Your task to perform on an android device: Open internet settings Image 0: 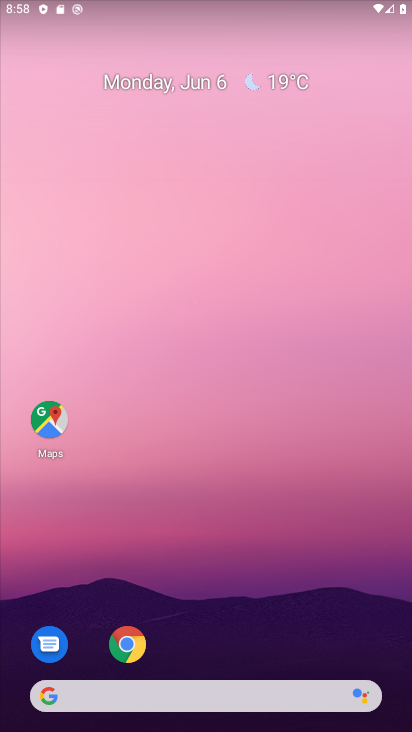
Step 0: drag from (191, 657) to (257, 158)
Your task to perform on an android device: Open internet settings Image 1: 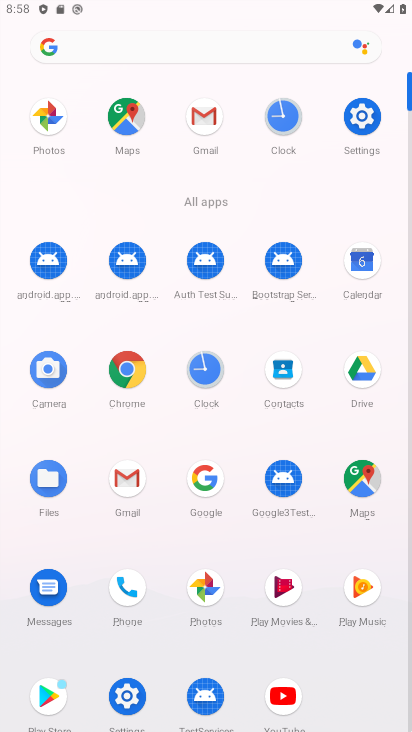
Step 1: click (118, 701)
Your task to perform on an android device: Open internet settings Image 2: 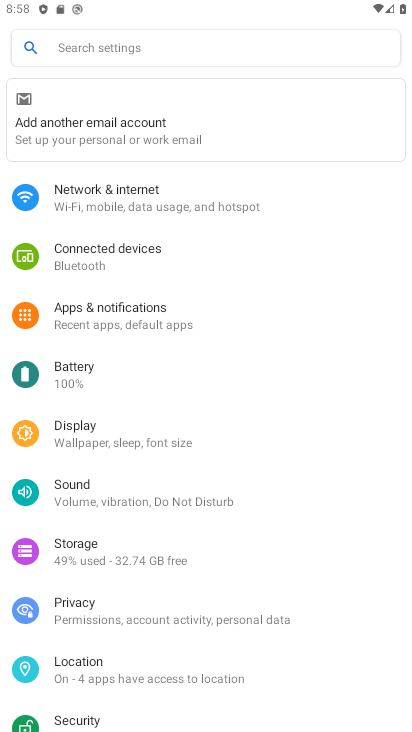
Step 2: click (171, 205)
Your task to perform on an android device: Open internet settings Image 3: 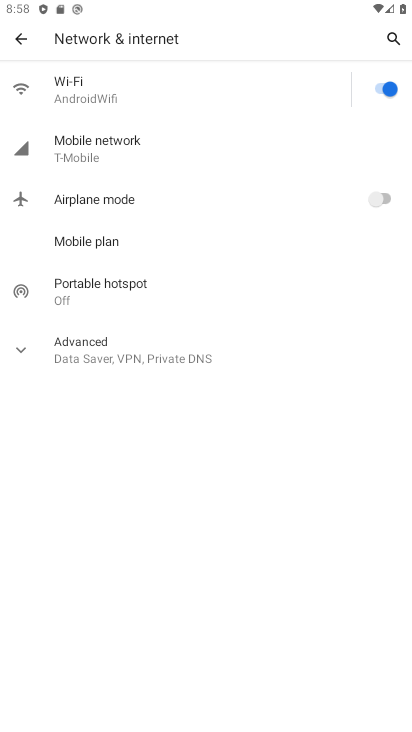
Step 3: click (155, 156)
Your task to perform on an android device: Open internet settings Image 4: 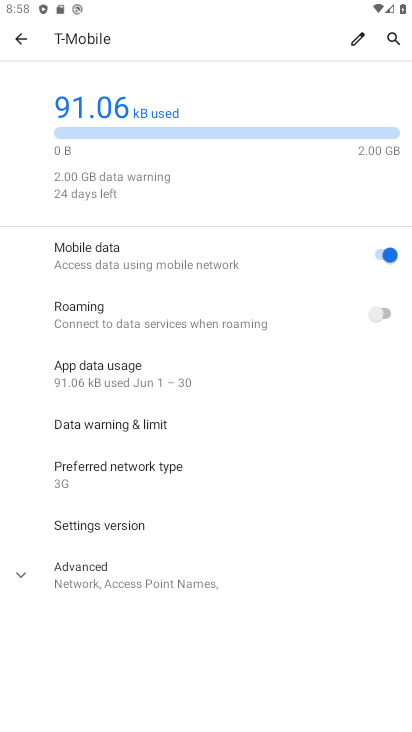
Step 4: task complete